Your task to perform on an android device: Go to location settings Image 0: 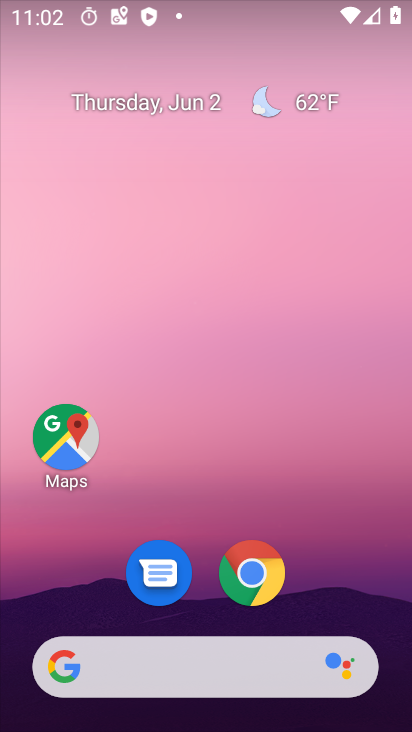
Step 0: drag from (304, 609) to (371, 42)
Your task to perform on an android device: Go to location settings Image 1: 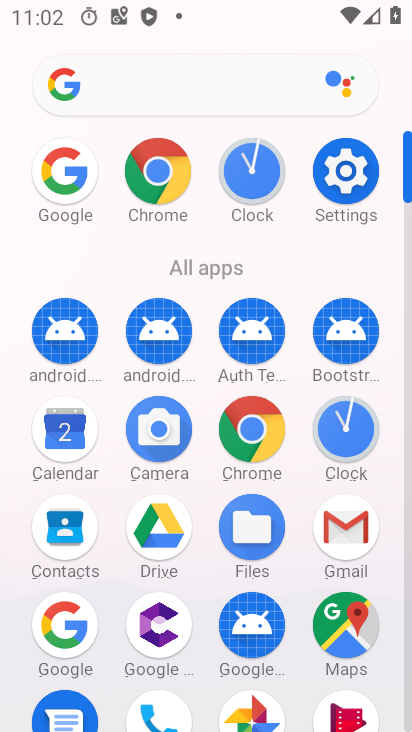
Step 1: click (344, 170)
Your task to perform on an android device: Go to location settings Image 2: 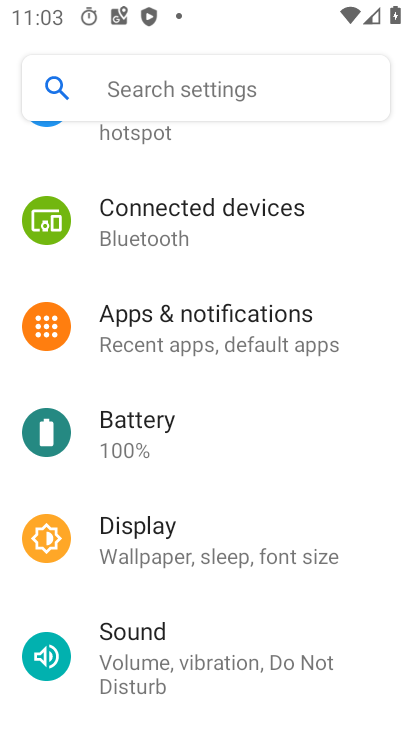
Step 2: drag from (219, 661) to (274, 169)
Your task to perform on an android device: Go to location settings Image 3: 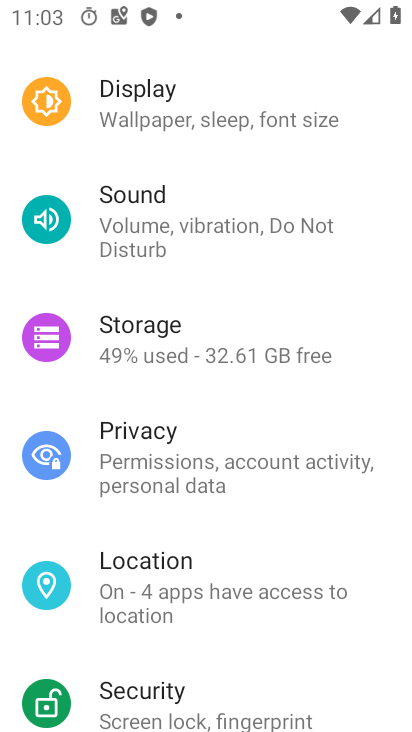
Step 3: click (179, 598)
Your task to perform on an android device: Go to location settings Image 4: 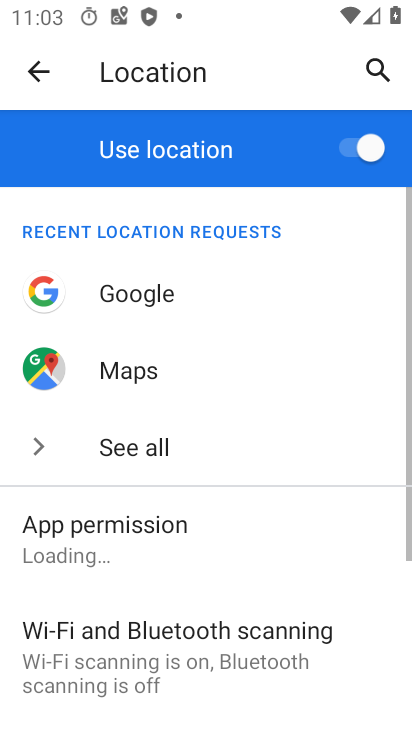
Step 4: task complete